Your task to perform on an android device: What's a good restaurant in San Diego? Image 0: 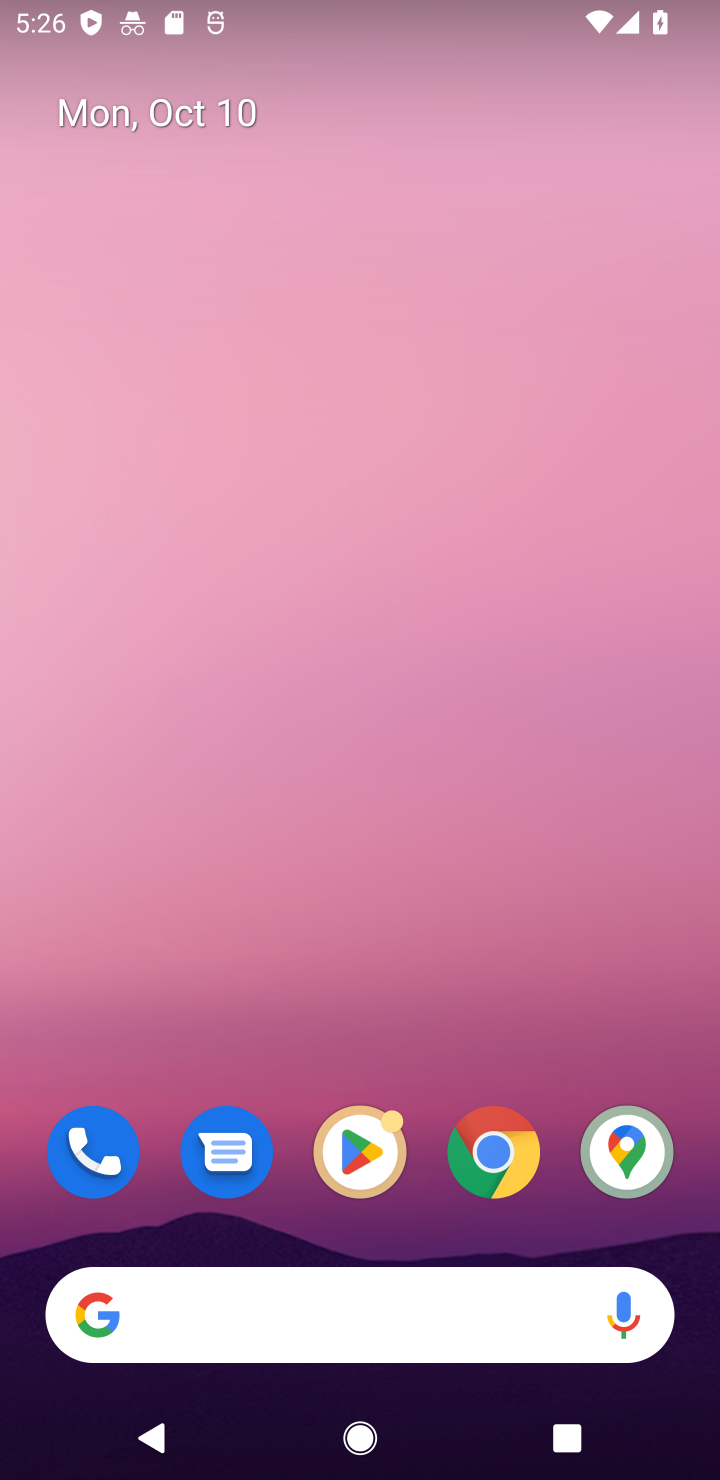
Step 0: click (502, 1156)
Your task to perform on an android device: What's a good restaurant in San Diego? Image 1: 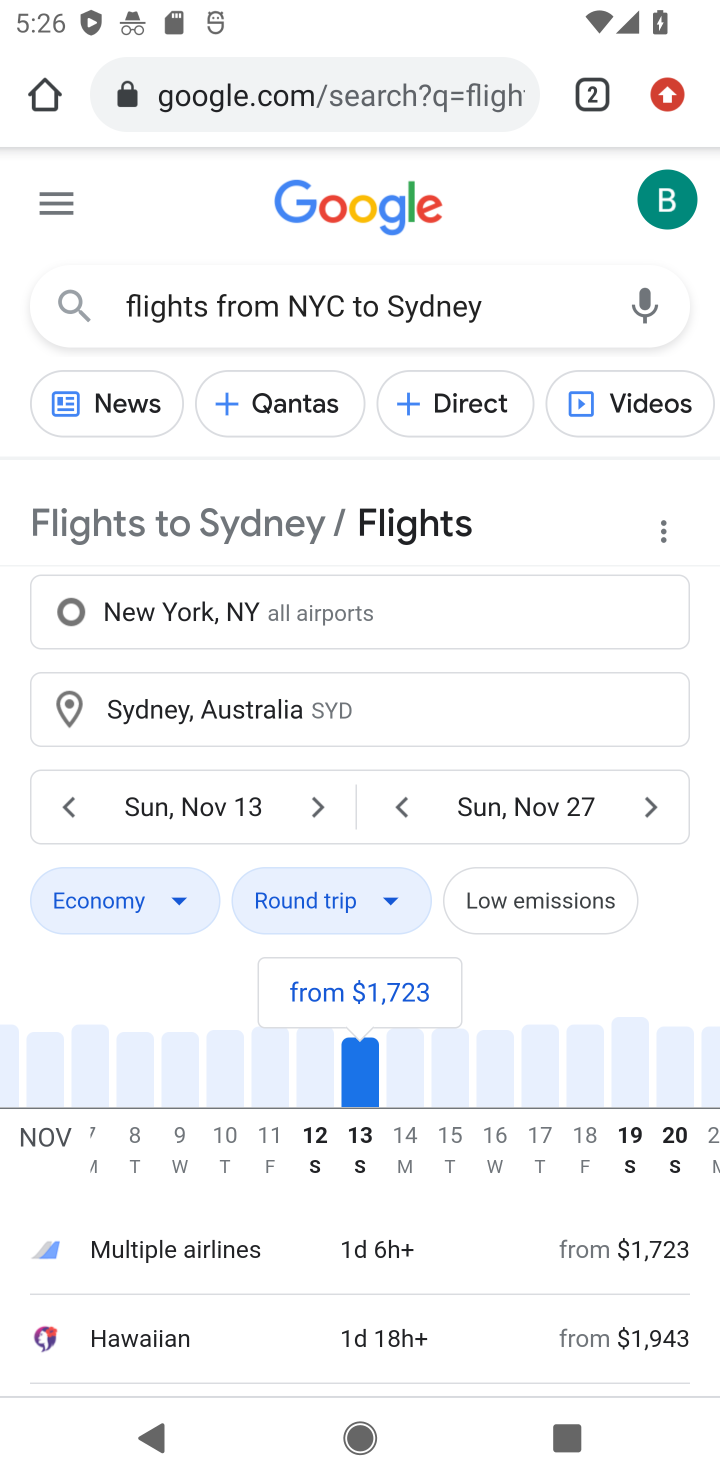
Step 1: click (441, 120)
Your task to perform on an android device: What's a good restaurant in San Diego? Image 2: 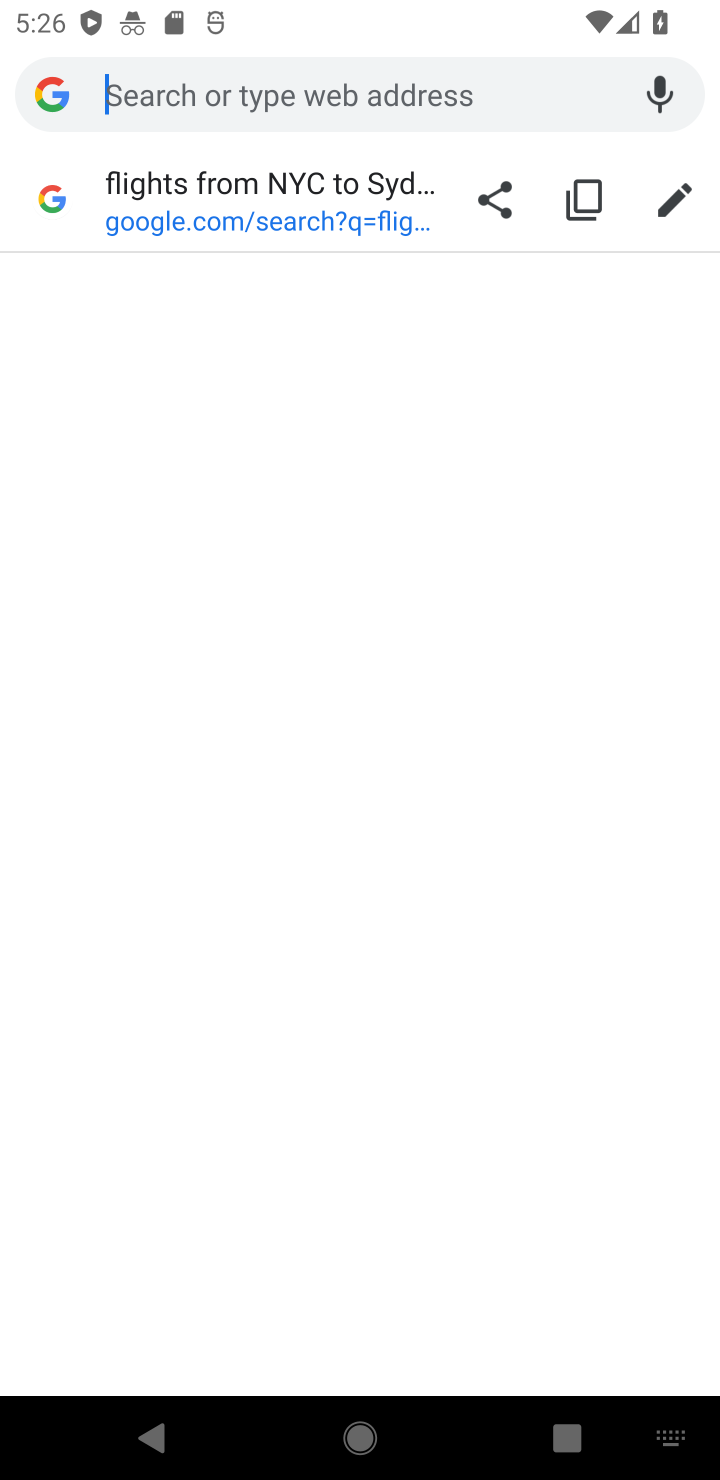
Step 2: type "What's a good restaurant in San Diego?"
Your task to perform on an android device: What's a good restaurant in San Diego? Image 3: 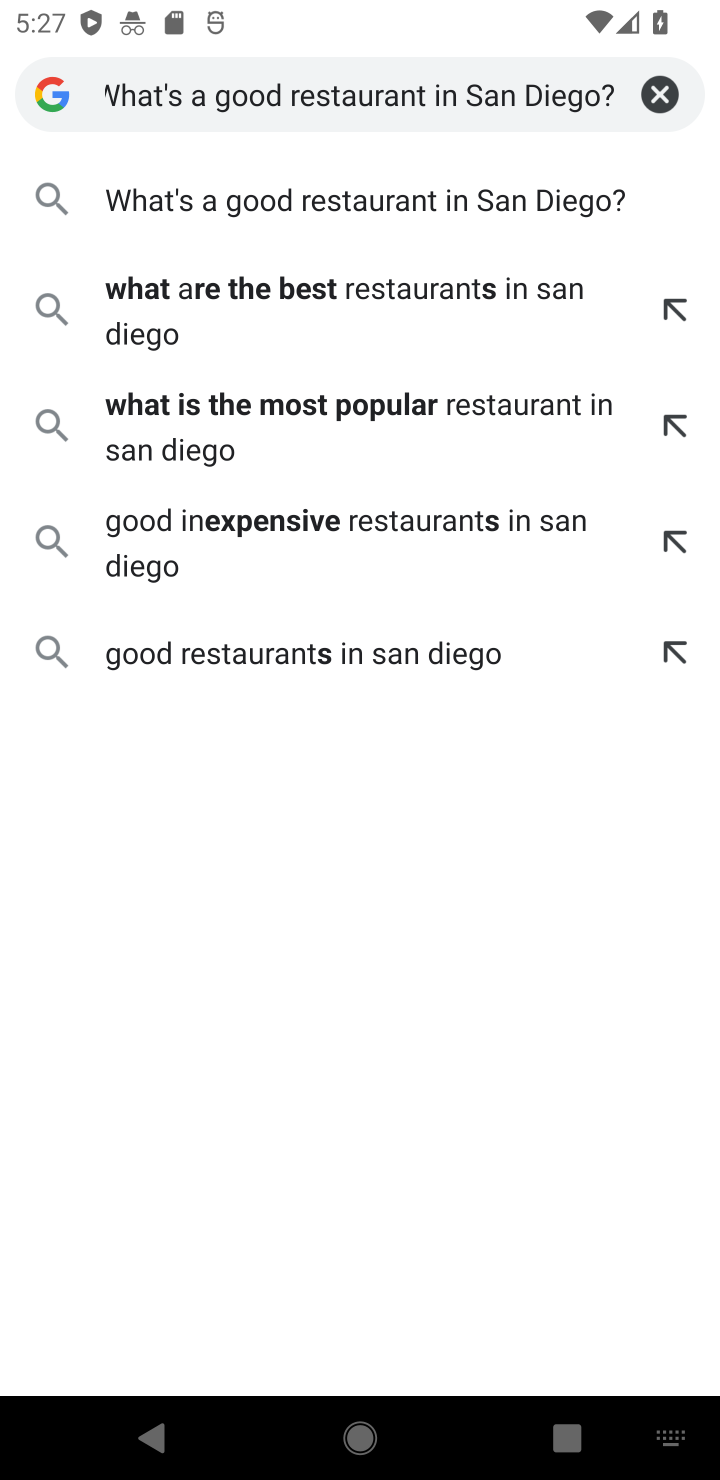
Step 3: click (379, 195)
Your task to perform on an android device: What's a good restaurant in San Diego? Image 4: 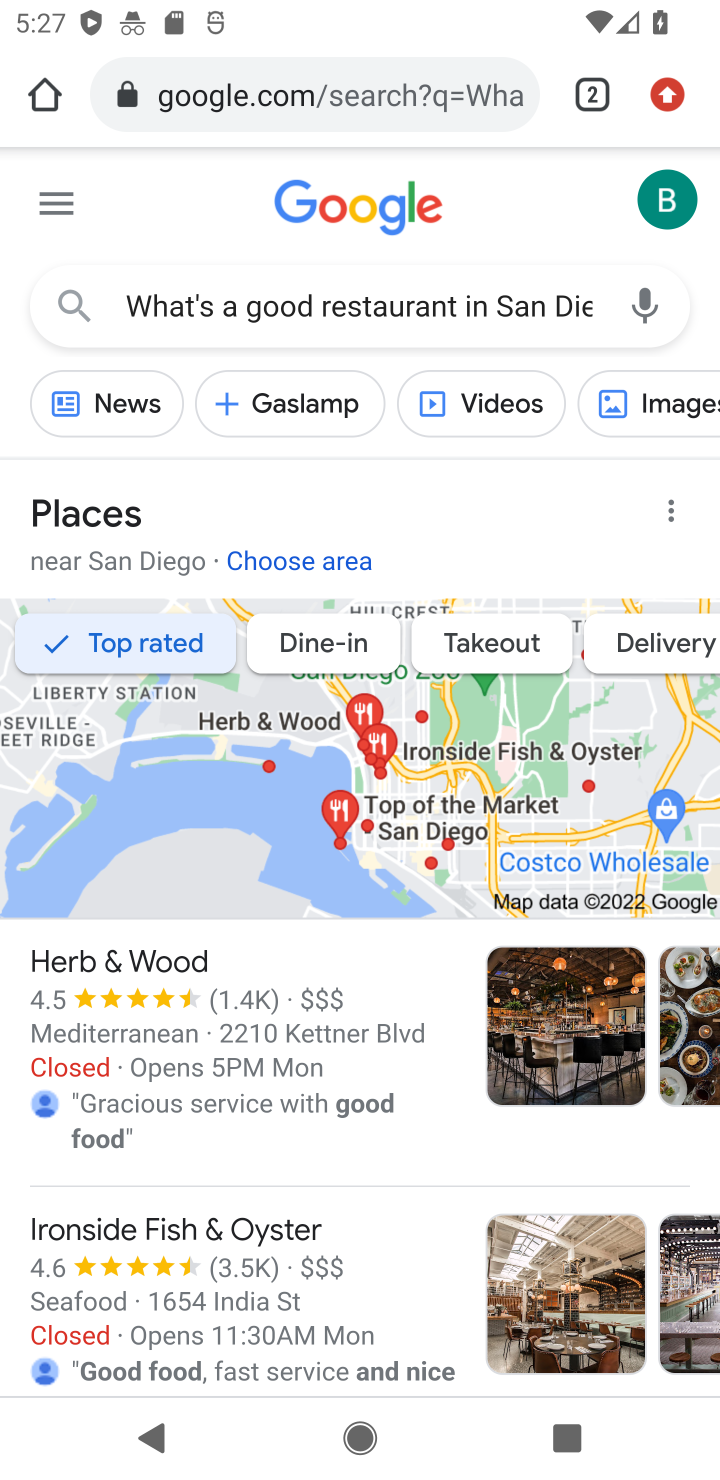
Step 4: task complete